Your task to perform on an android device: Go to Android settings Image 0: 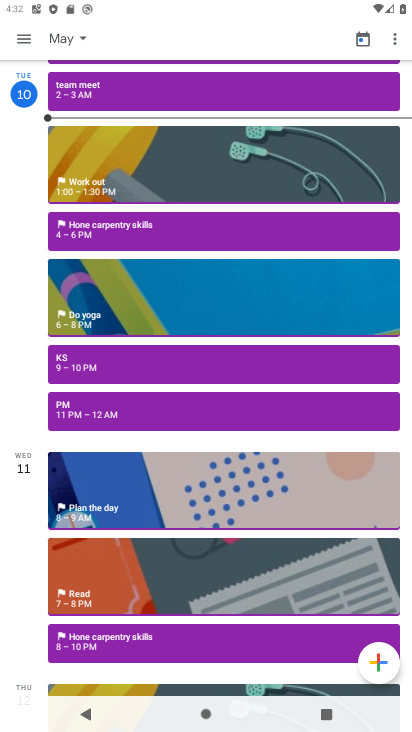
Step 0: press back button
Your task to perform on an android device: Go to Android settings Image 1: 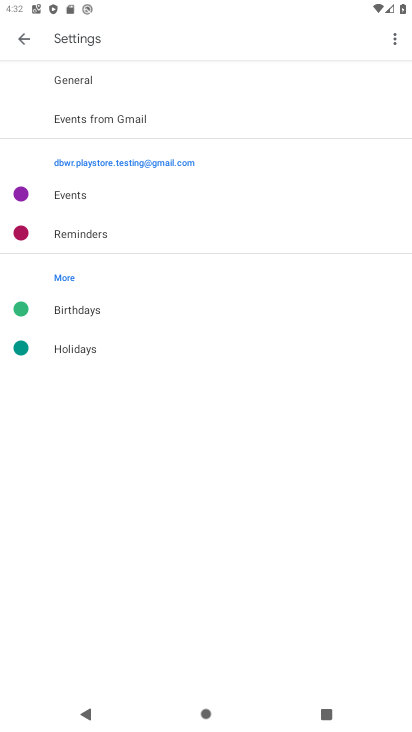
Step 1: press back button
Your task to perform on an android device: Go to Android settings Image 2: 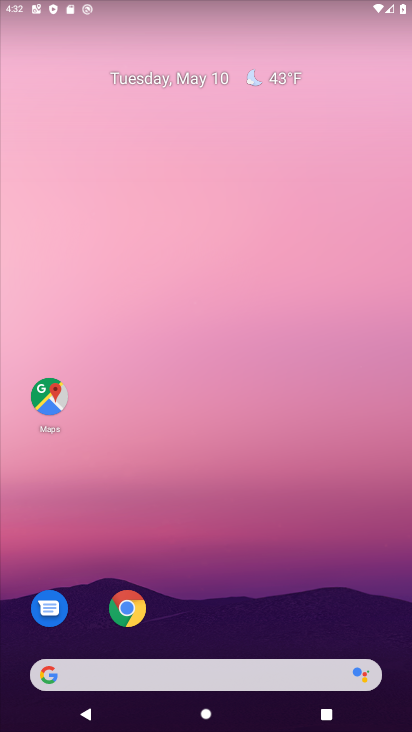
Step 2: drag from (216, 636) to (359, 37)
Your task to perform on an android device: Go to Android settings Image 3: 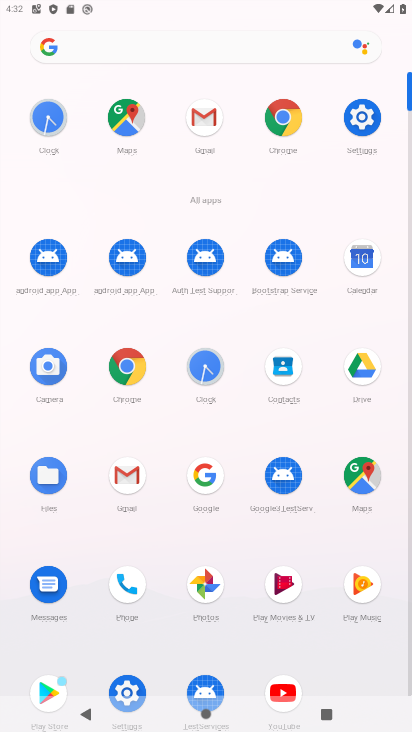
Step 3: click (366, 121)
Your task to perform on an android device: Go to Android settings Image 4: 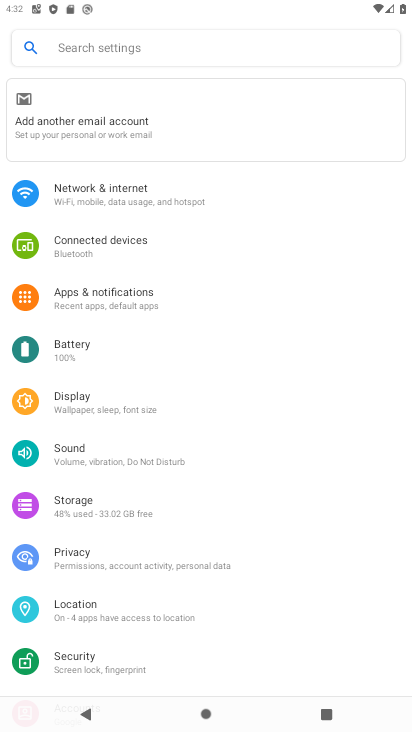
Step 4: drag from (161, 638) to (278, 43)
Your task to perform on an android device: Go to Android settings Image 5: 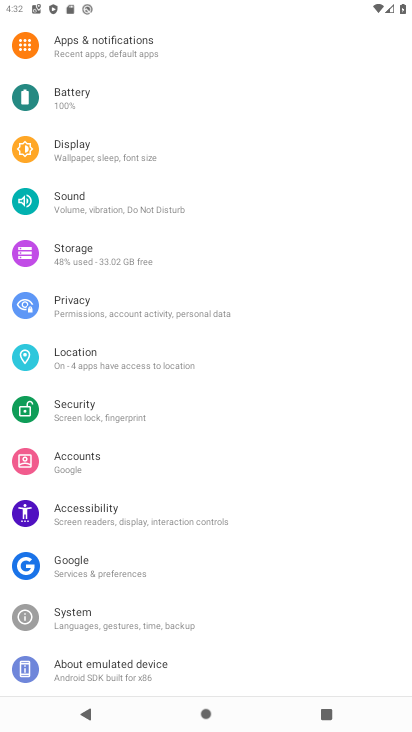
Step 5: click (104, 673)
Your task to perform on an android device: Go to Android settings Image 6: 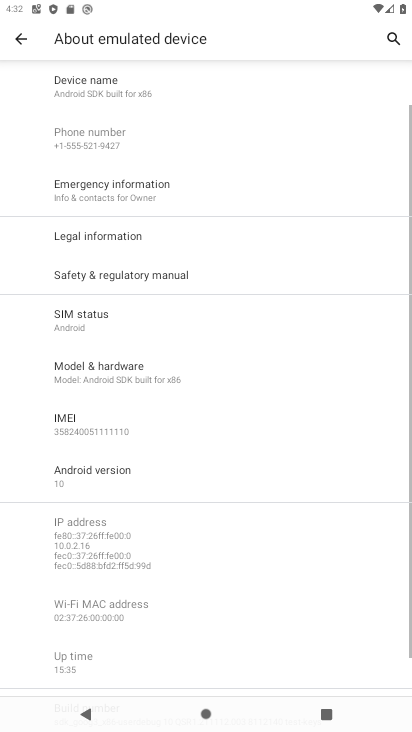
Step 6: click (84, 480)
Your task to perform on an android device: Go to Android settings Image 7: 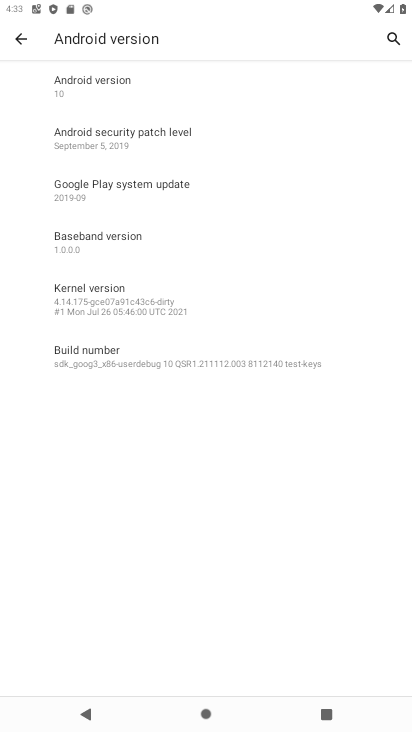
Step 7: click (84, 84)
Your task to perform on an android device: Go to Android settings Image 8: 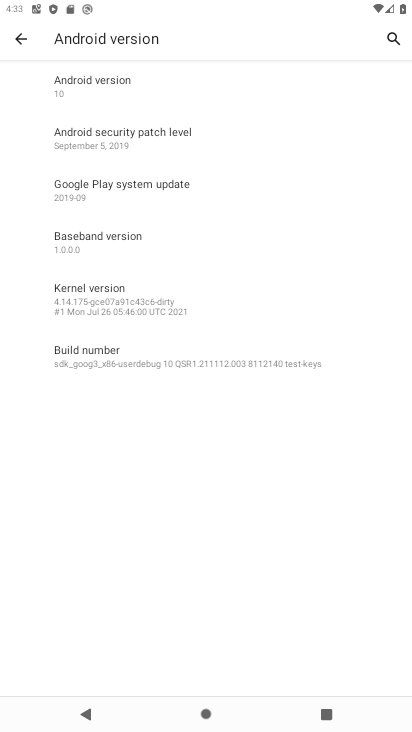
Step 8: task complete